Your task to perform on an android device: turn on bluetooth scan Image 0: 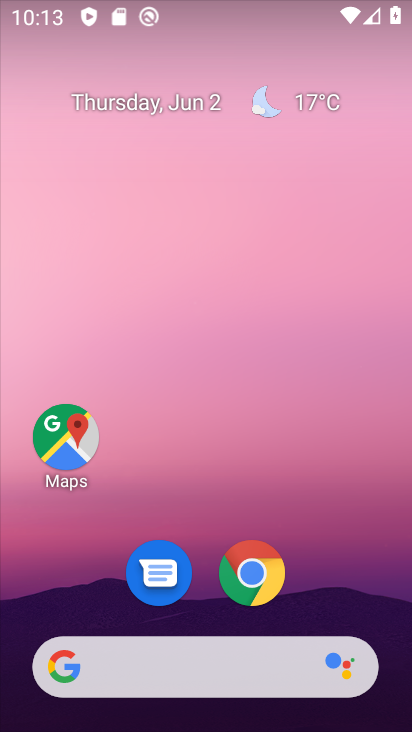
Step 0: task complete